Your task to perform on an android device: change the clock style Image 0: 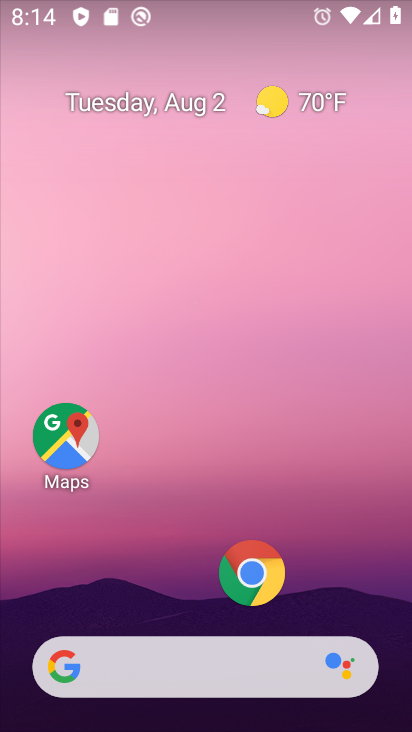
Step 0: drag from (194, 594) to (166, 0)
Your task to perform on an android device: change the clock style Image 1: 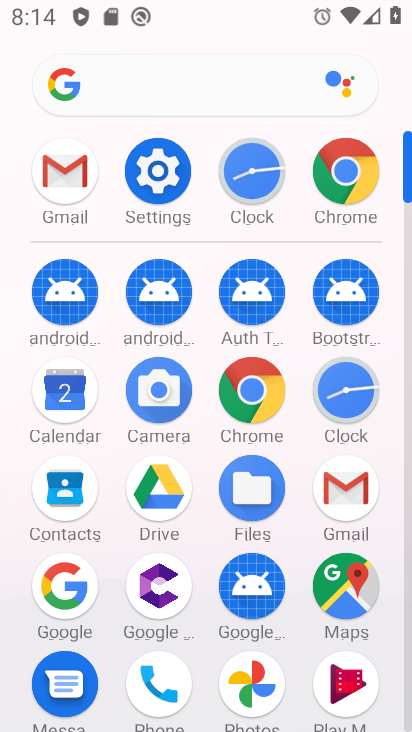
Step 1: click (343, 382)
Your task to perform on an android device: change the clock style Image 2: 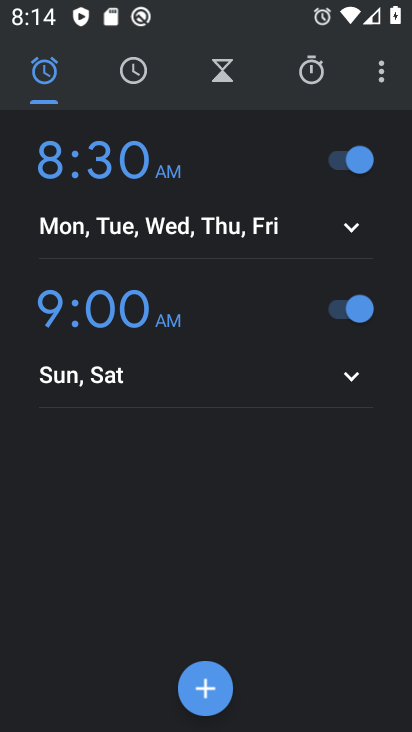
Step 2: click (385, 65)
Your task to perform on an android device: change the clock style Image 3: 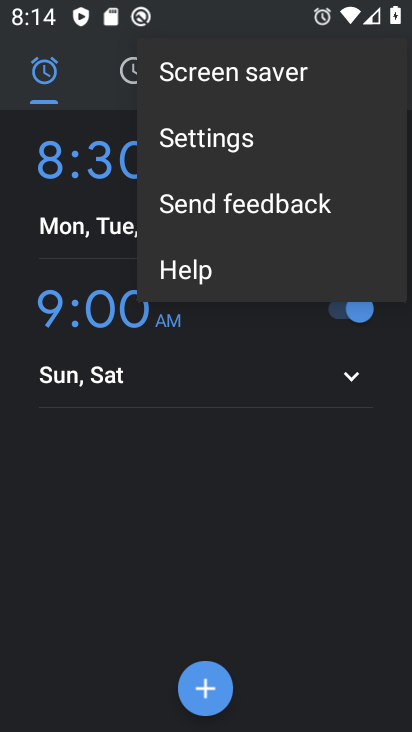
Step 3: click (261, 133)
Your task to perform on an android device: change the clock style Image 4: 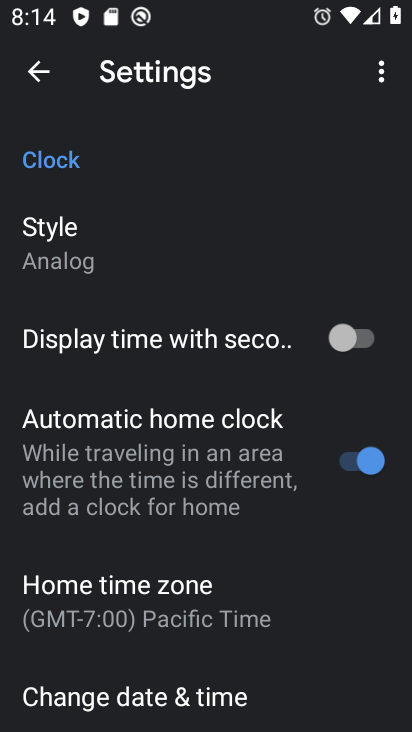
Step 4: click (101, 240)
Your task to perform on an android device: change the clock style Image 5: 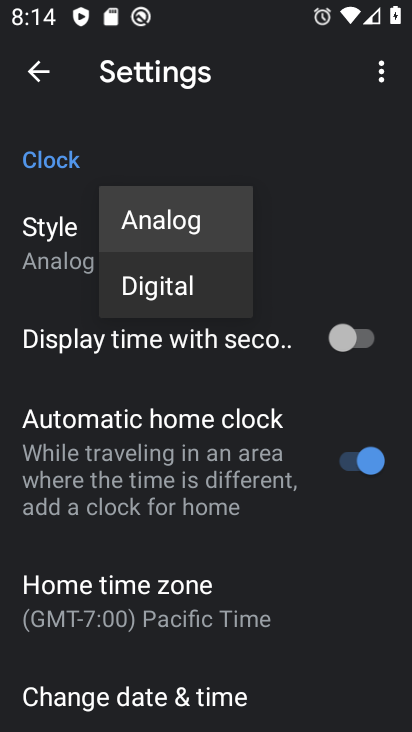
Step 5: click (185, 292)
Your task to perform on an android device: change the clock style Image 6: 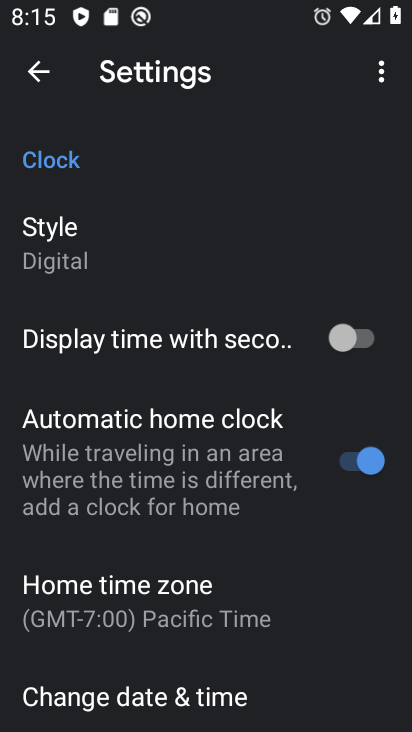
Step 6: task complete